Your task to perform on an android device: Open settings on Google Maps Image 0: 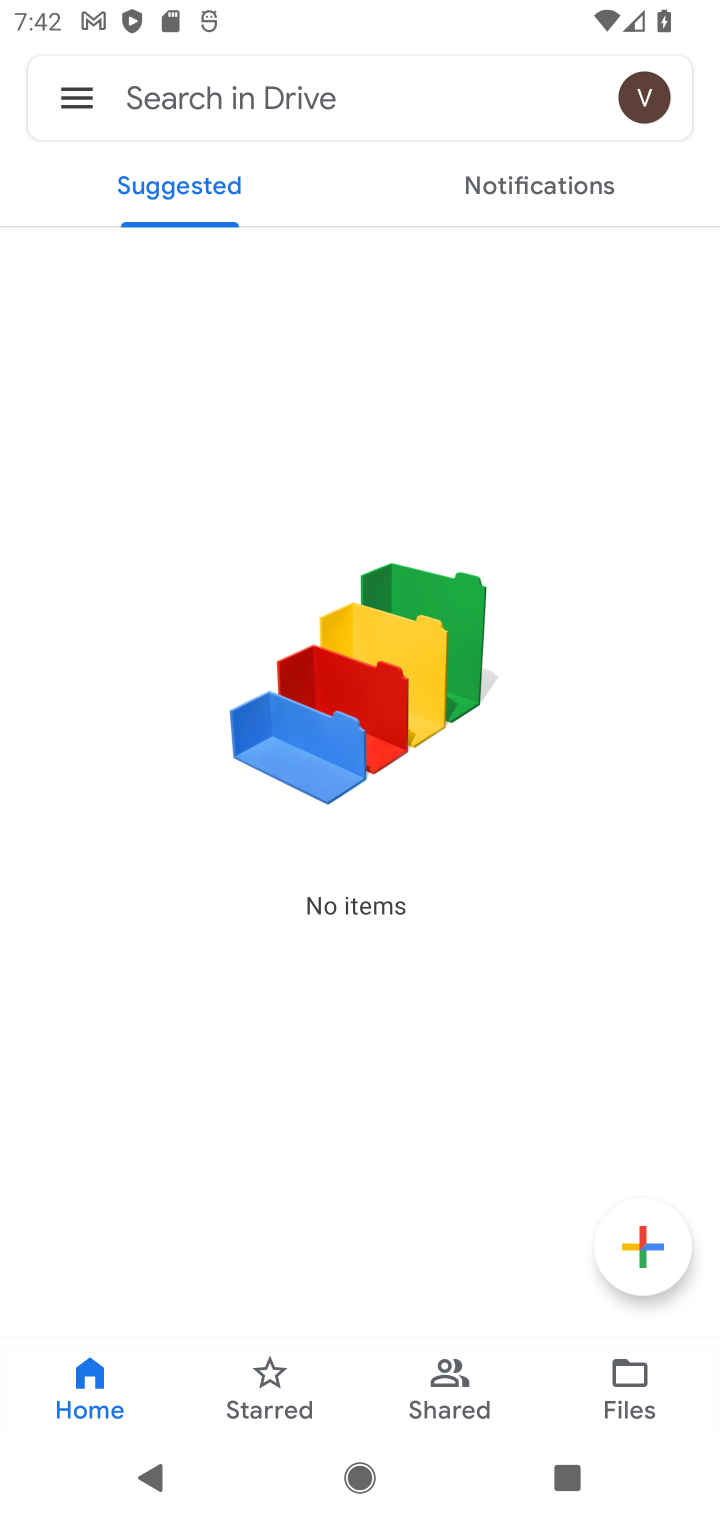
Step 0: press home button
Your task to perform on an android device: Open settings on Google Maps Image 1: 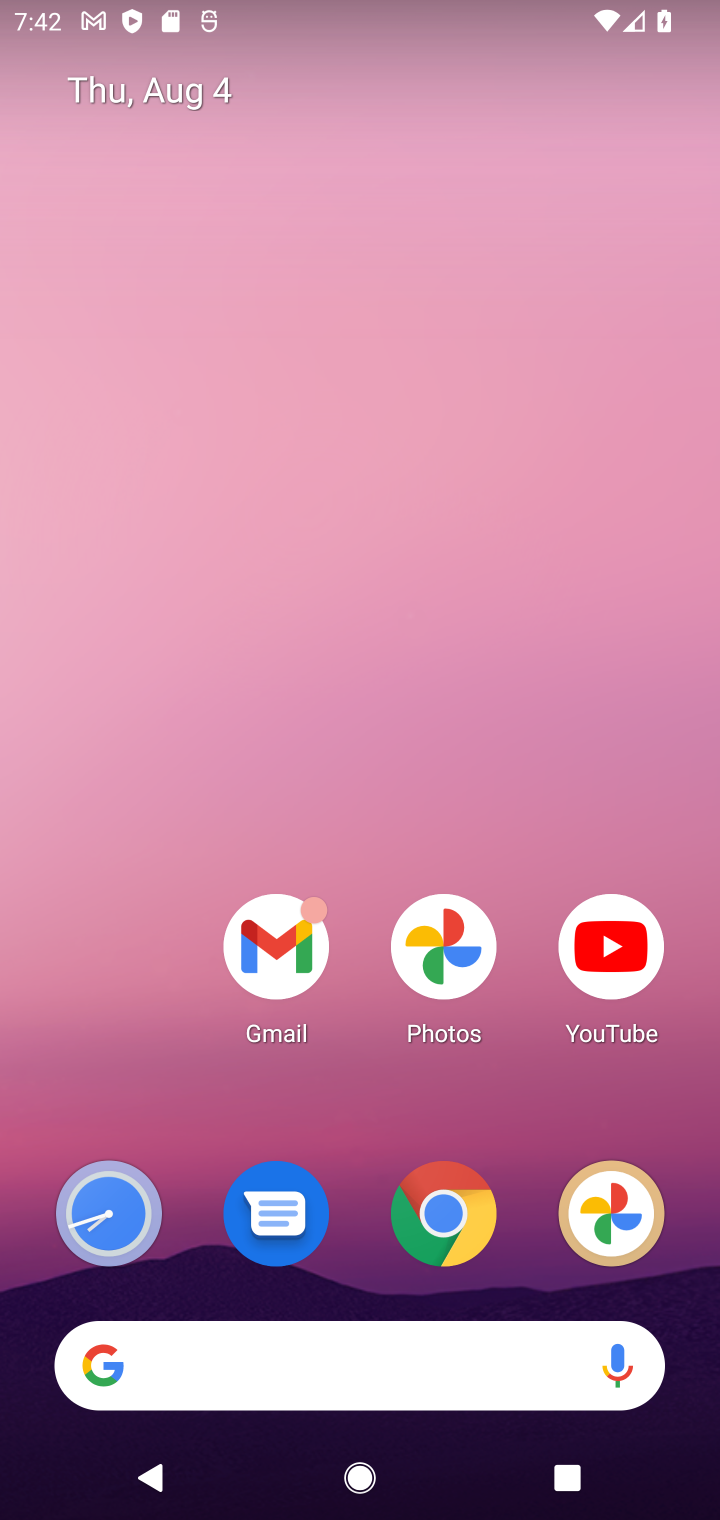
Step 1: drag from (317, 1286) to (317, 610)
Your task to perform on an android device: Open settings on Google Maps Image 2: 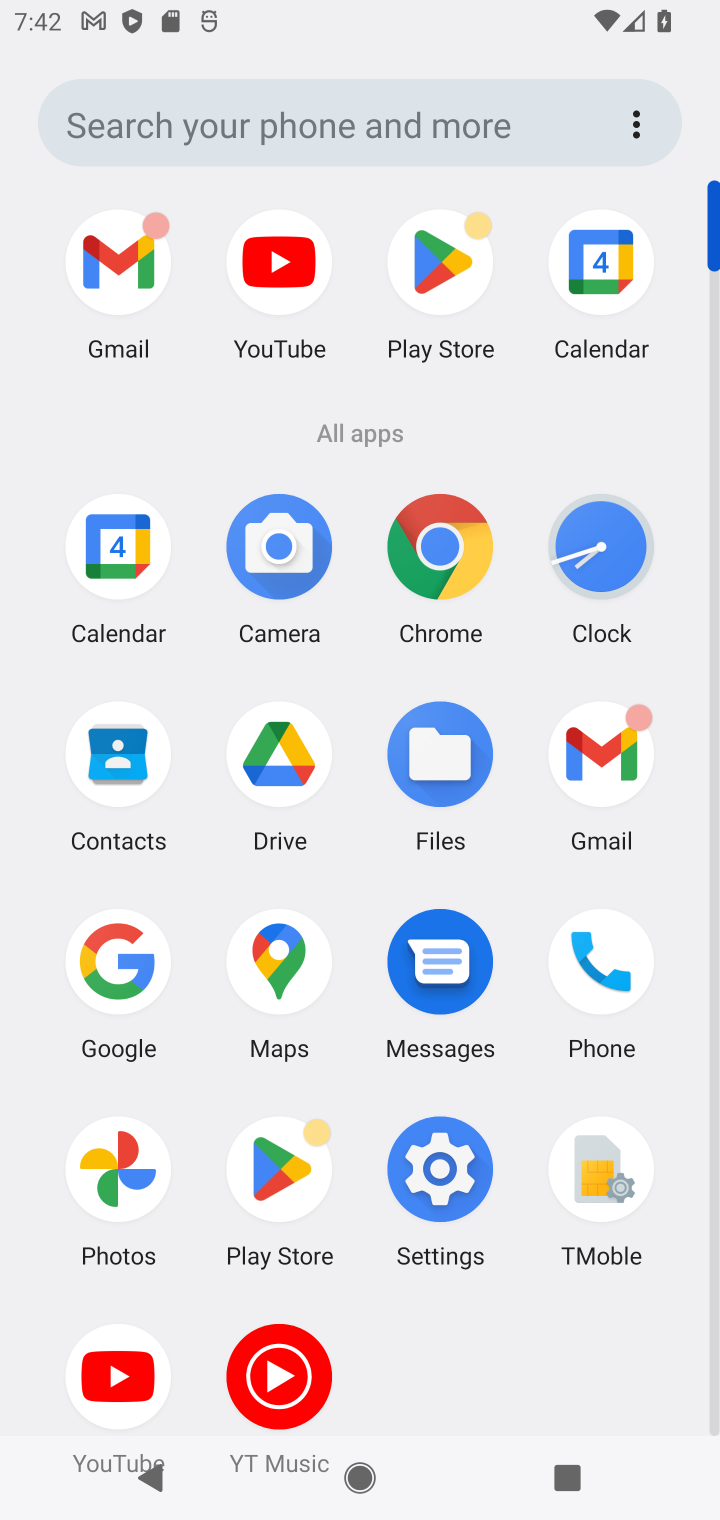
Step 2: click (261, 991)
Your task to perform on an android device: Open settings on Google Maps Image 3: 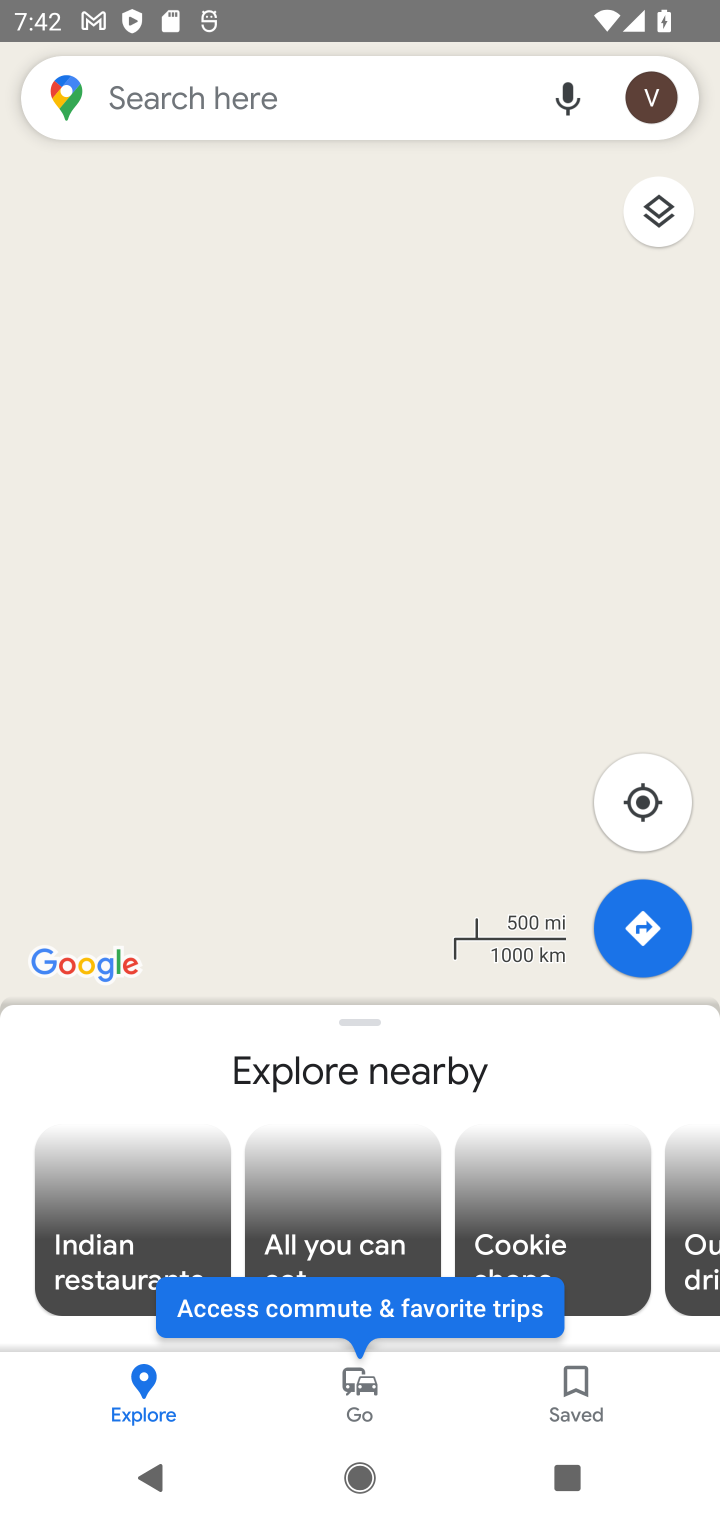
Step 3: task complete